Your task to perform on an android device: Open notification settings Image 0: 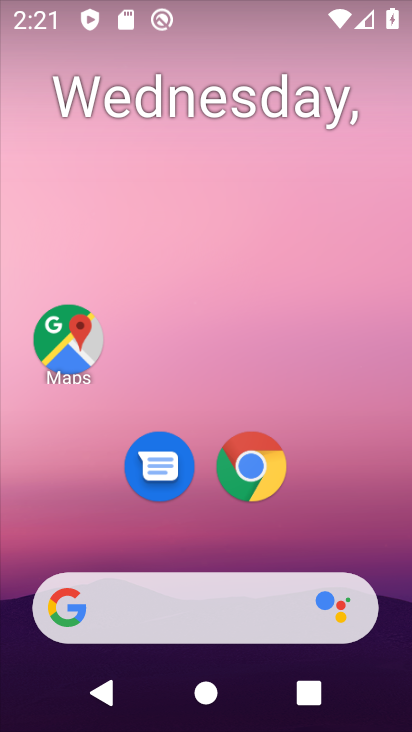
Step 0: drag from (307, 352) to (264, 22)
Your task to perform on an android device: Open notification settings Image 1: 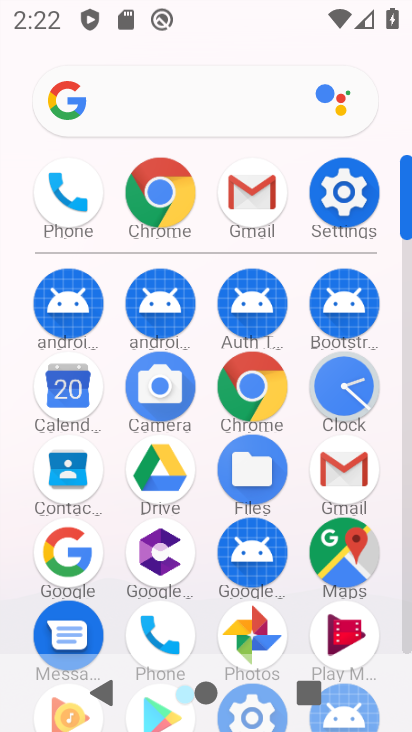
Step 1: click (342, 188)
Your task to perform on an android device: Open notification settings Image 2: 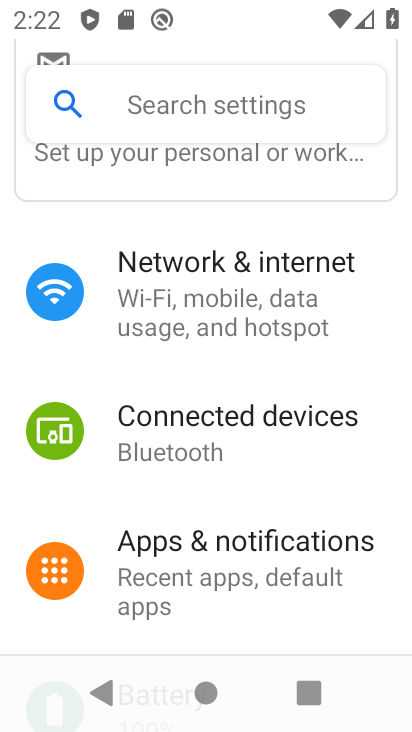
Step 2: drag from (313, 555) to (339, 292)
Your task to perform on an android device: Open notification settings Image 3: 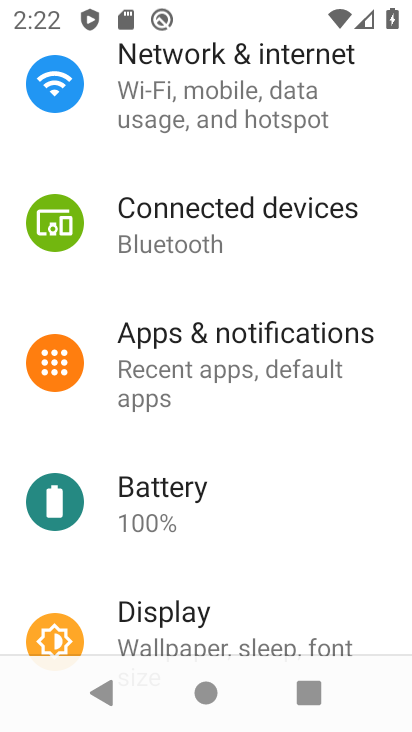
Step 3: click (250, 337)
Your task to perform on an android device: Open notification settings Image 4: 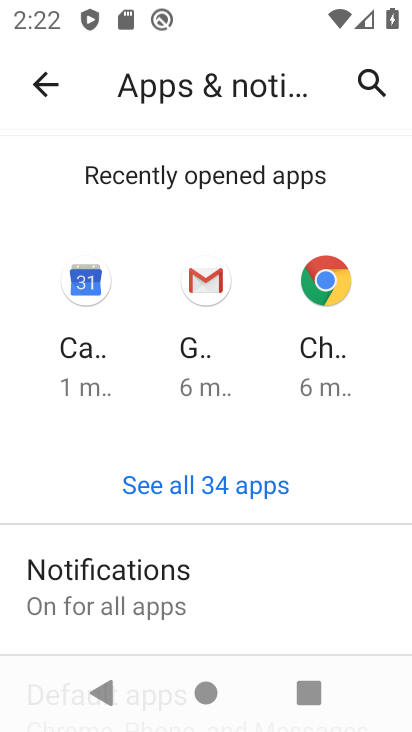
Step 4: drag from (246, 520) to (241, 142)
Your task to perform on an android device: Open notification settings Image 5: 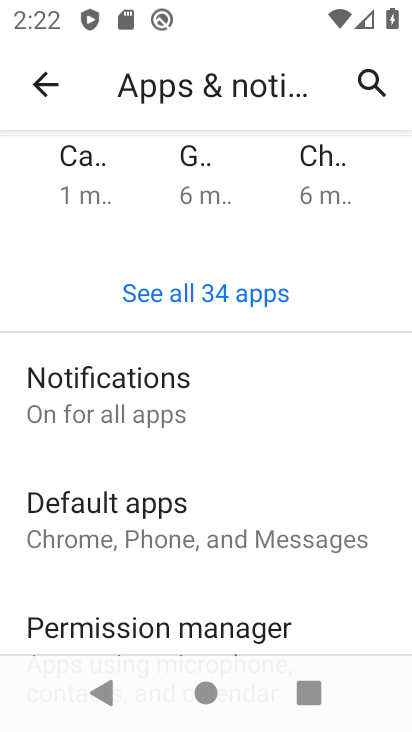
Step 5: click (208, 388)
Your task to perform on an android device: Open notification settings Image 6: 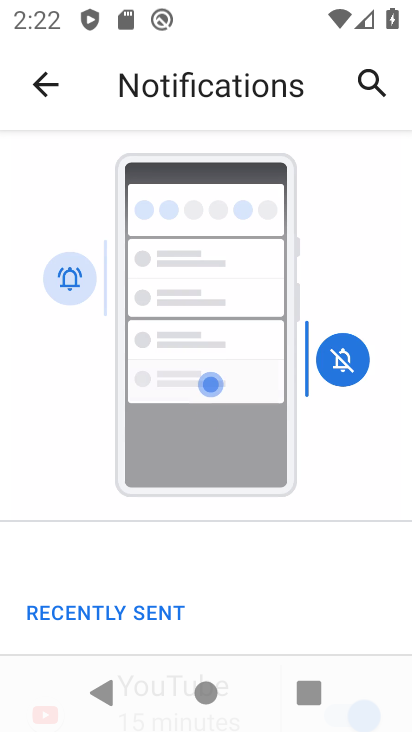
Step 6: drag from (257, 502) to (248, 172)
Your task to perform on an android device: Open notification settings Image 7: 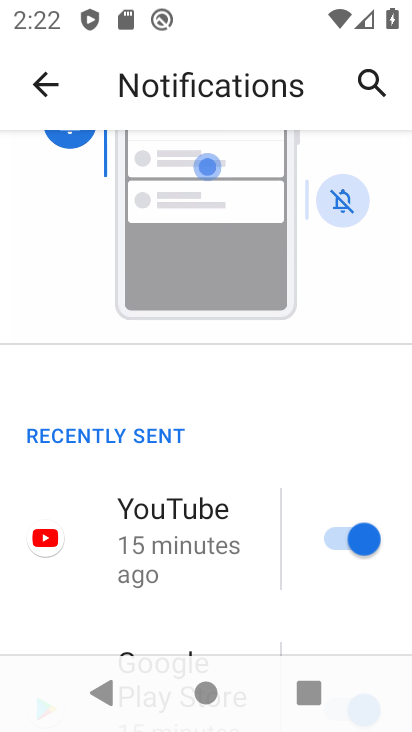
Step 7: drag from (234, 514) to (226, 196)
Your task to perform on an android device: Open notification settings Image 8: 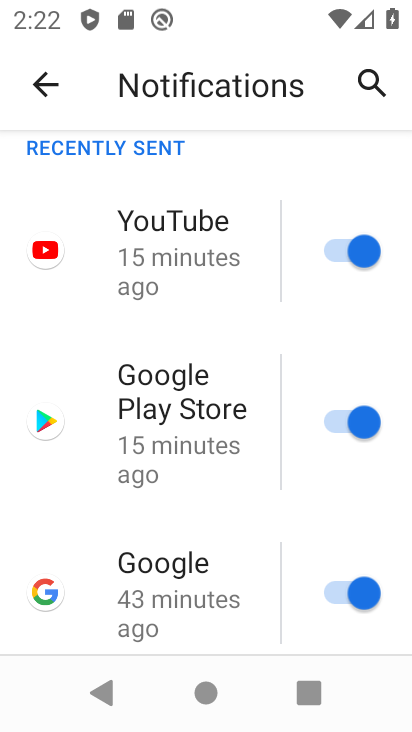
Step 8: drag from (180, 455) to (219, 153)
Your task to perform on an android device: Open notification settings Image 9: 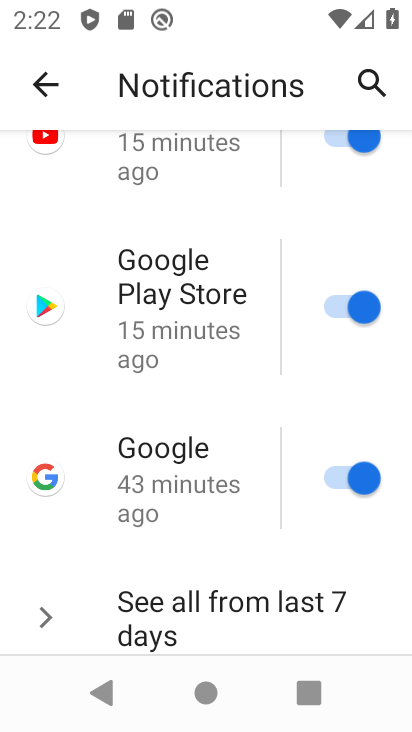
Step 9: drag from (166, 487) to (192, 201)
Your task to perform on an android device: Open notification settings Image 10: 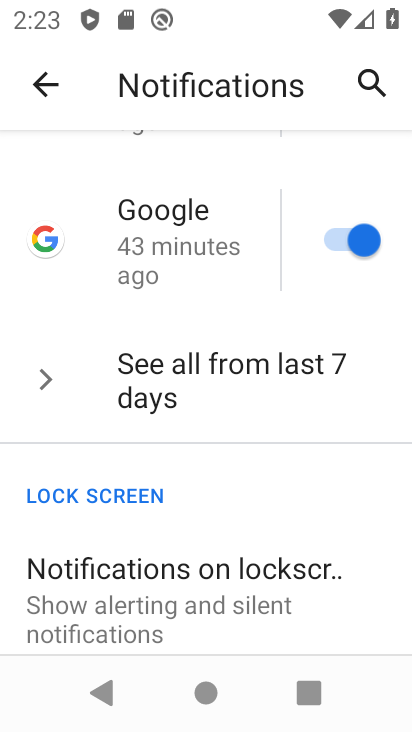
Step 10: drag from (211, 514) to (213, 186)
Your task to perform on an android device: Open notification settings Image 11: 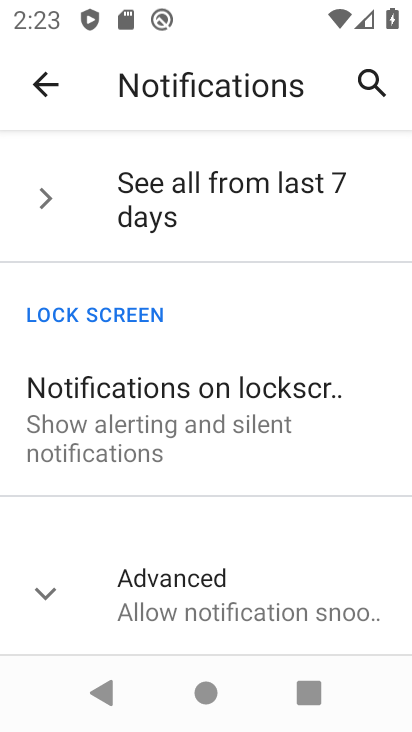
Step 11: click (68, 594)
Your task to perform on an android device: Open notification settings Image 12: 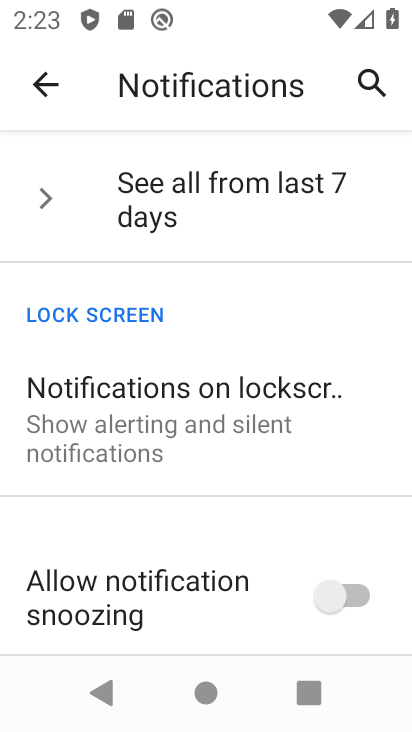
Step 12: task complete